Your task to perform on an android device: Go to privacy settings Image 0: 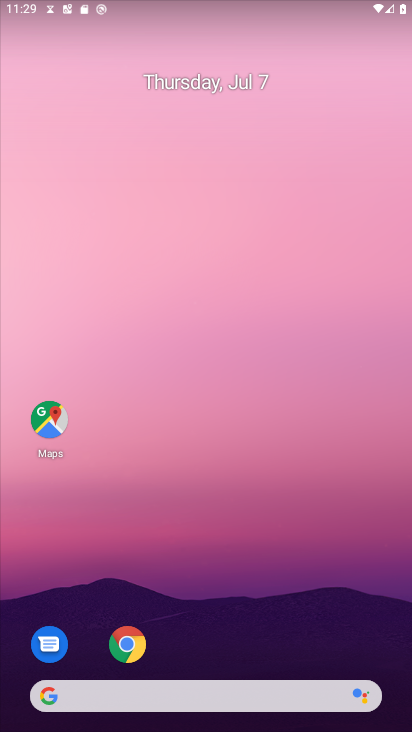
Step 0: press home button
Your task to perform on an android device: Go to privacy settings Image 1: 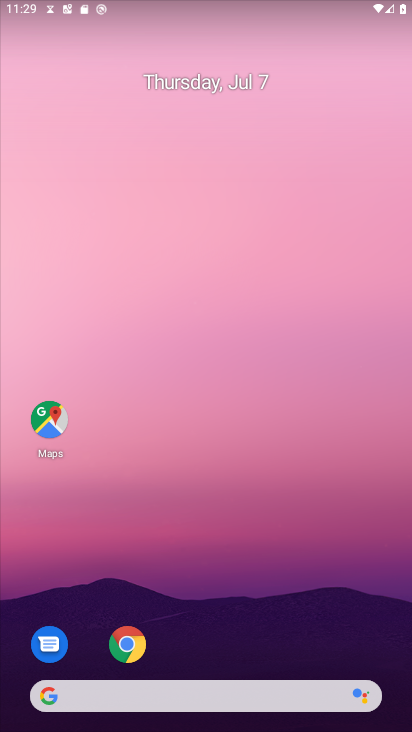
Step 1: drag from (253, 585) to (183, 21)
Your task to perform on an android device: Go to privacy settings Image 2: 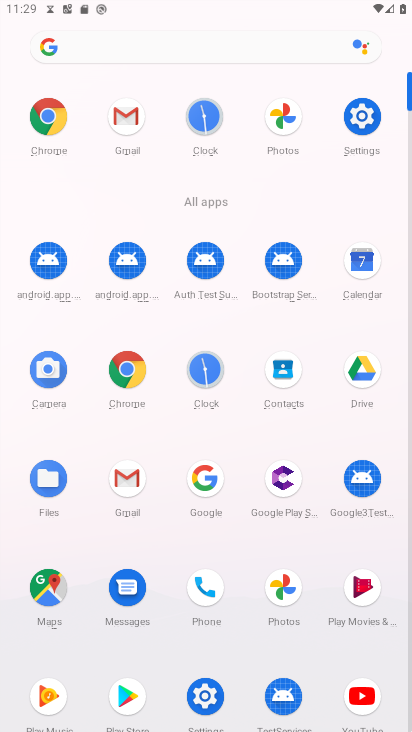
Step 2: click (364, 120)
Your task to perform on an android device: Go to privacy settings Image 3: 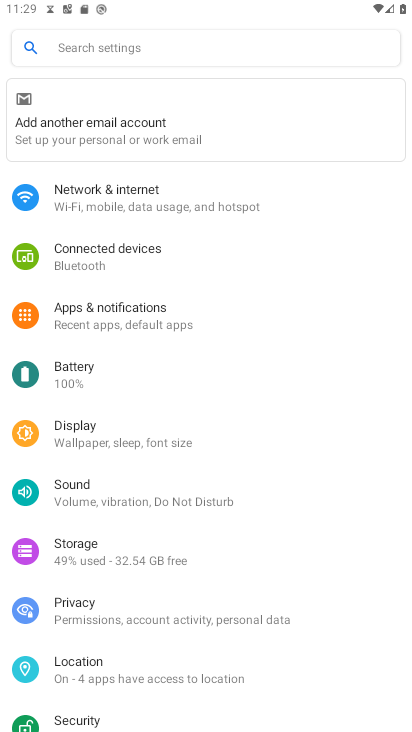
Step 3: click (93, 608)
Your task to perform on an android device: Go to privacy settings Image 4: 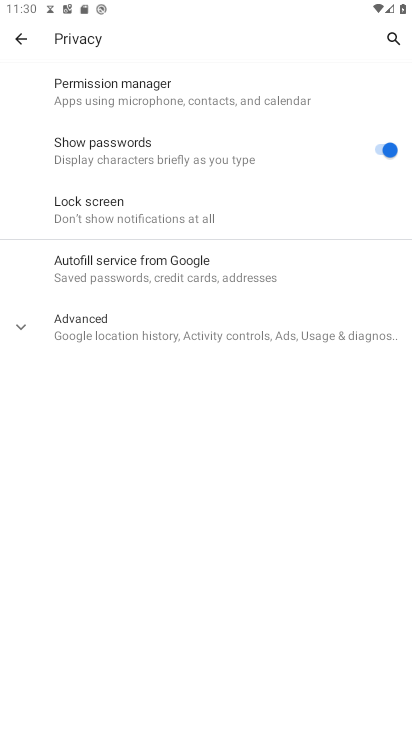
Step 4: task complete